Your task to perform on an android device: Go to wifi settings Image 0: 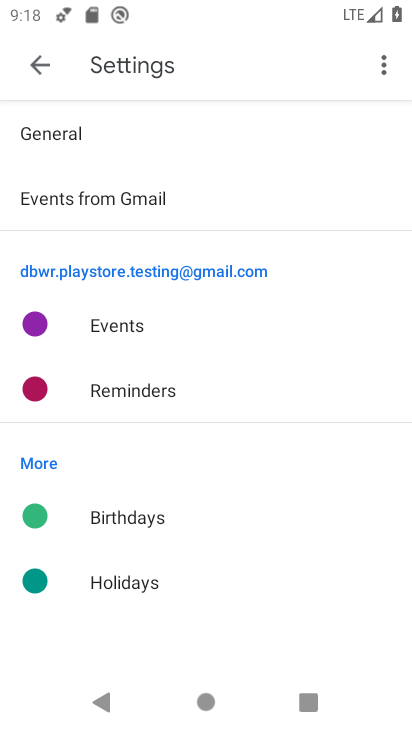
Step 0: press home button
Your task to perform on an android device: Go to wifi settings Image 1: 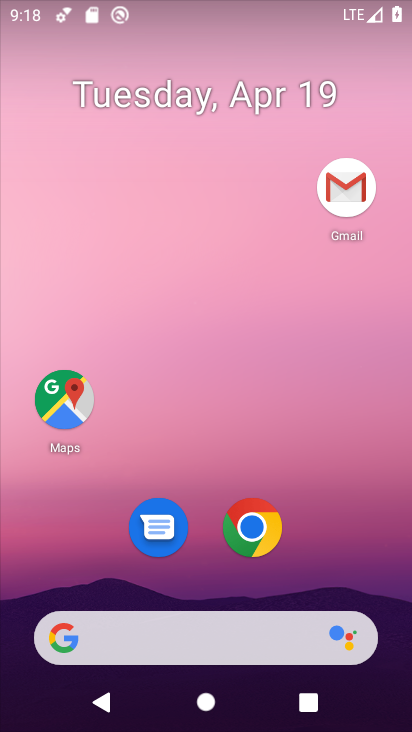
Step 1: drag from (372, 539) to (392, 104)
Your task to perform on an android device: Go to wifi settings Image 2: 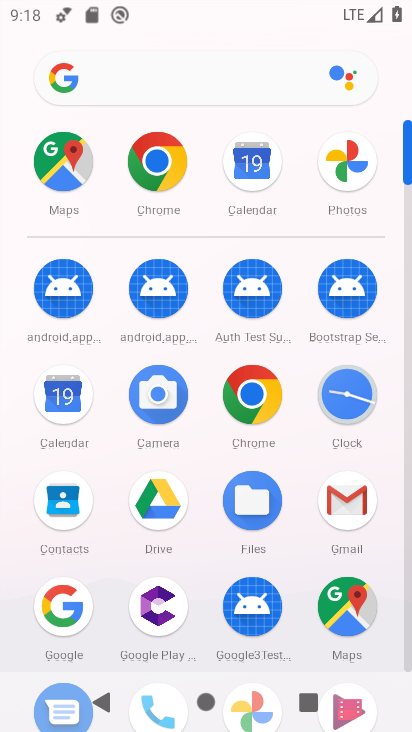
Step 2: drag from (294, 555) to (284, 218)
Your task to perform on an android device: Go to wifi settings Image 3: 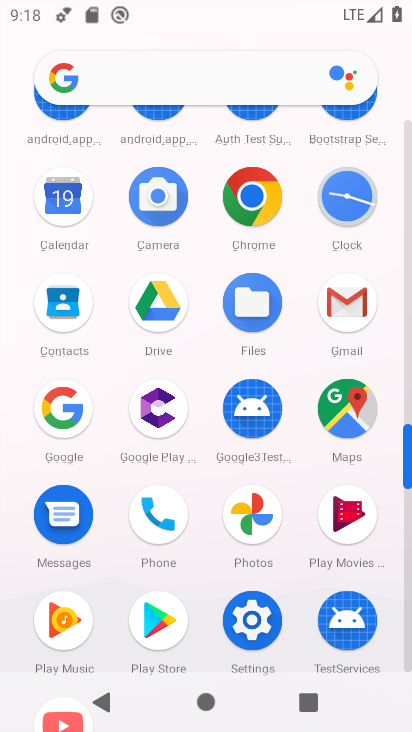
Step 3: click (260, 636)
Your task to perform on an android device: Go to wifi settings Image 4: 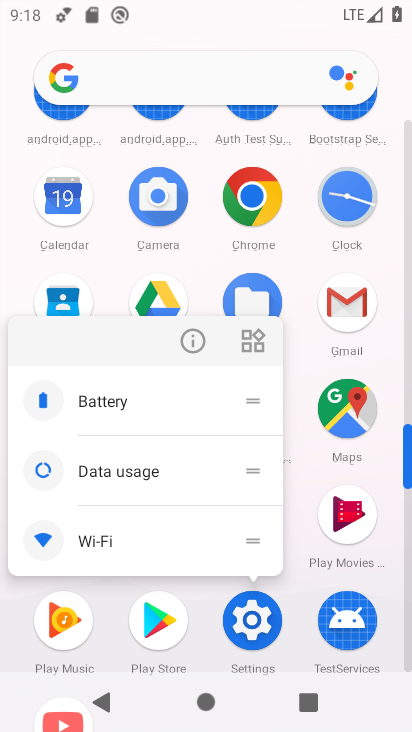
Step 4: click (261, 631)
Your task to perform on an android device: Go to wifi settings Image 5: 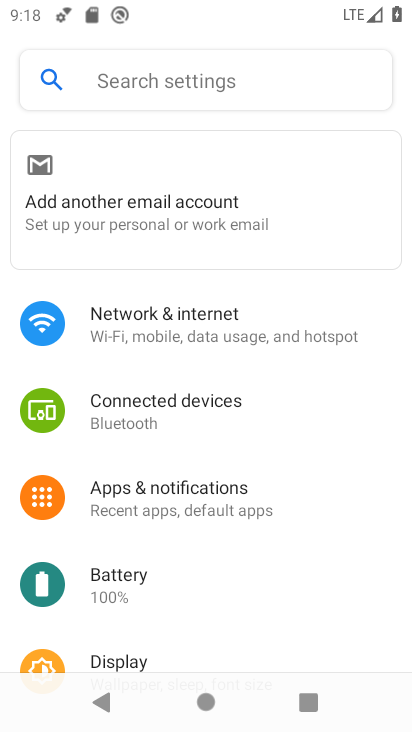
Step 5: click (188, 313)
Your task to perform on an android device: Go to wifi settings Image 6: 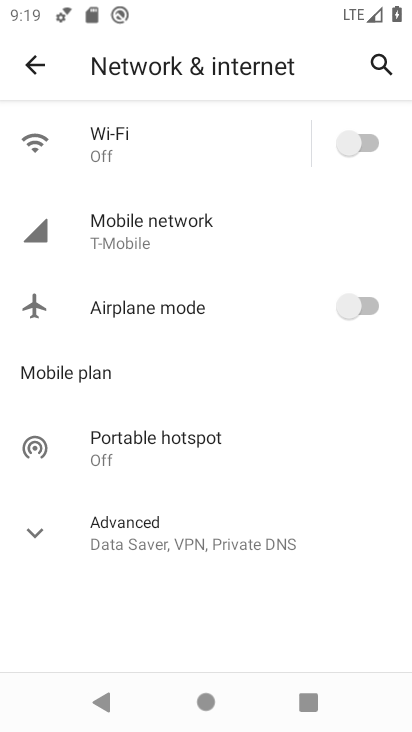
Step 6: click (165, 146)
Your task to perform on an android device: Go to wifi settings Image 7: 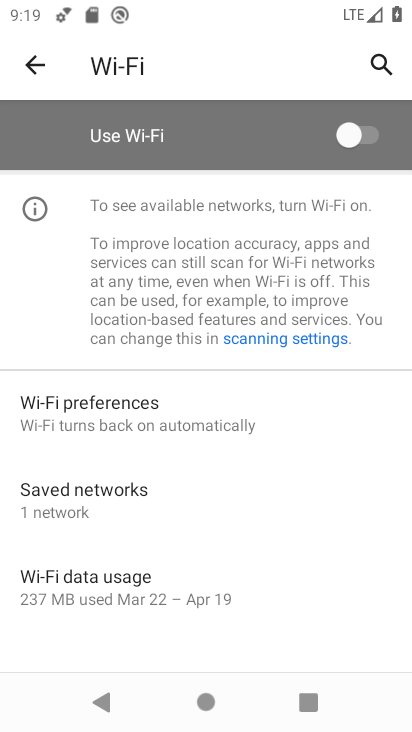
Step 7: task complete